Your task to perform on an android device: open chrome privacy settings Image 0: 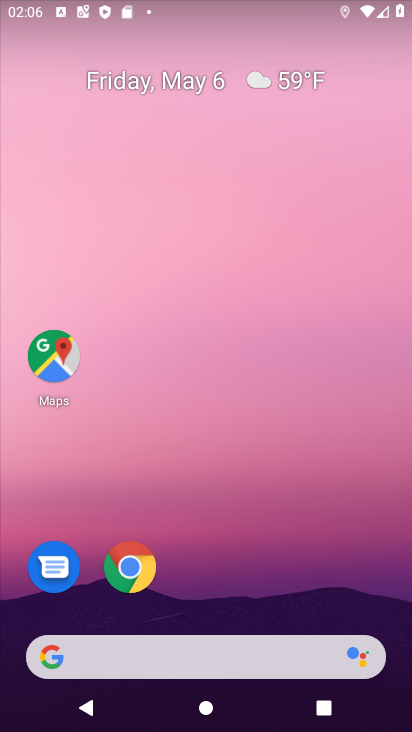
Step 0: click (127, 566)
Your task to perform on an android device: open chrome privacy settings Image 1: 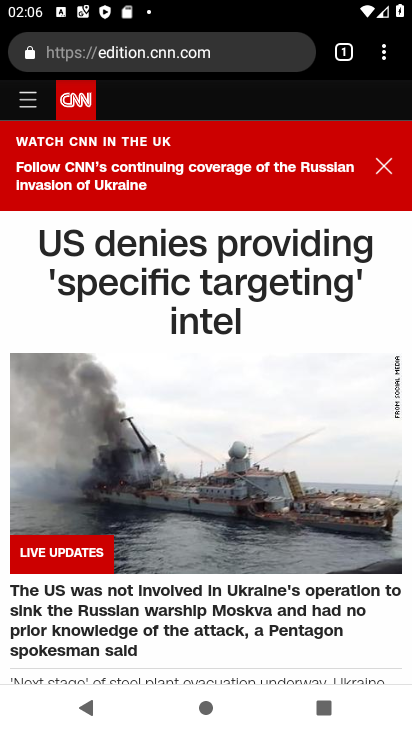
Step 1: click (383, 57)
Your task to perform on an android device: open chrome privacy settings Image 2: 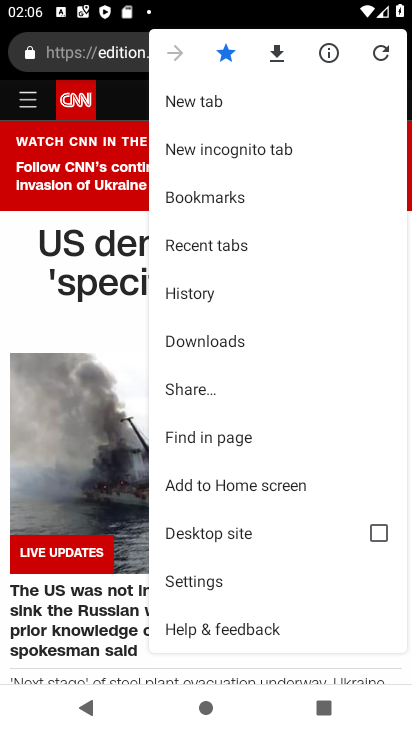
Step 2: click (208, 586)
Your task to perform on an android device: open chrome privacy settings Image 3: 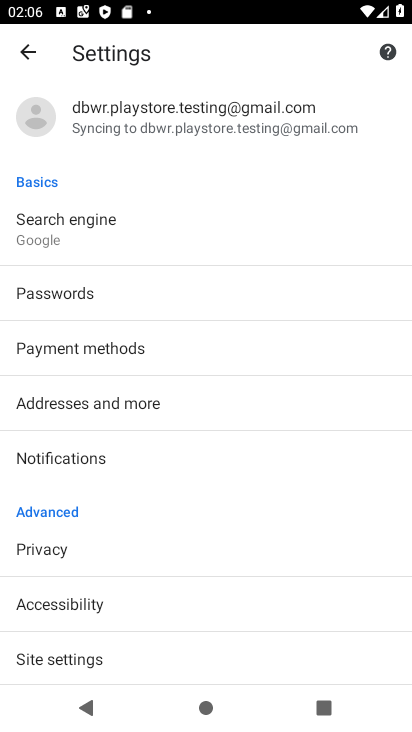
Step 3: click (28, 550)
Your task to perform on an android device: open chrome privacy settings Image 4: 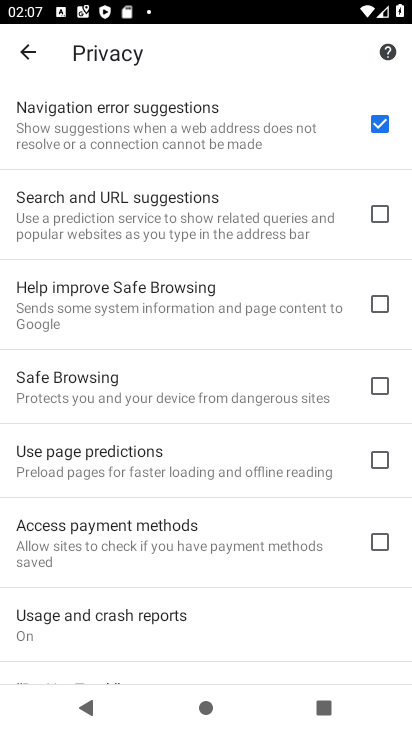
Step 4: task complete